Your task to perform on an android device: toggle airplane mode Image 0: 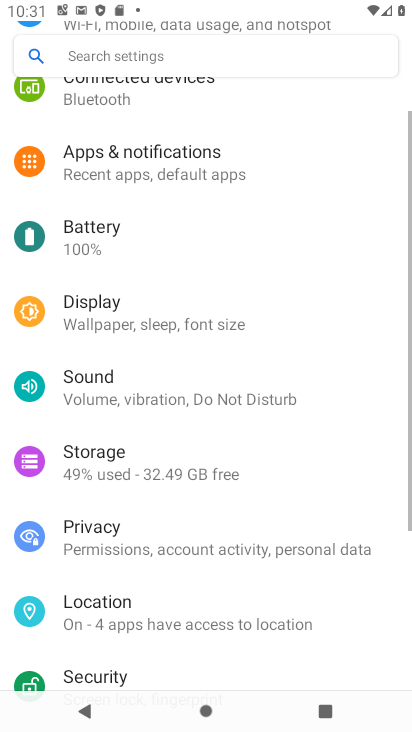
Step 0: press home button
Your task to perform on an android device: toggle airplane mode Image 1: 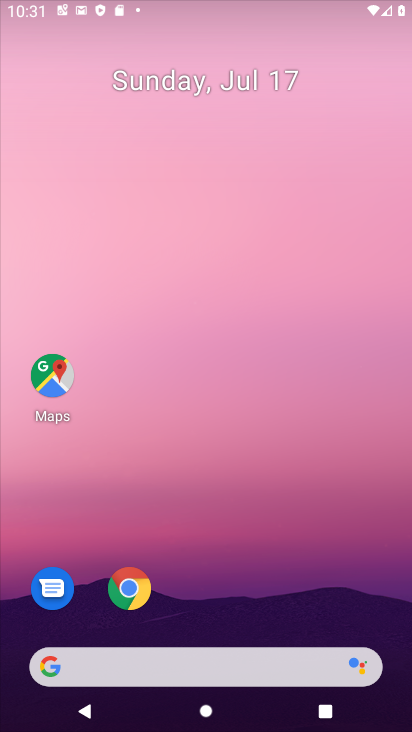
Step 1: drag from (357, 2) to (322, 563)
Your task to perform on an android device: toggle airplane mode Image 2: 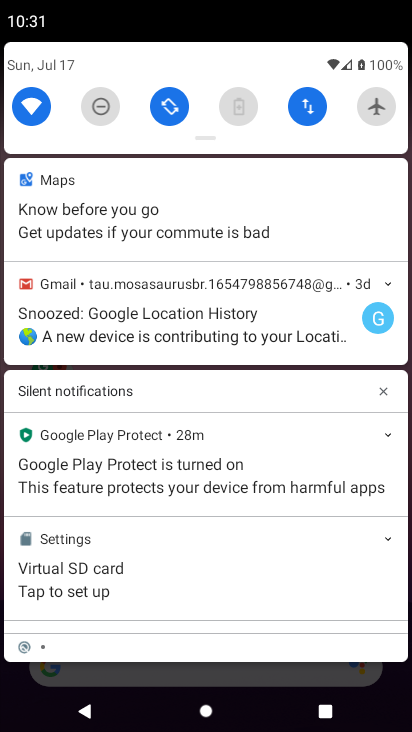
Step 2: click (369, 119)
Your task to perform on an android device: toggle airplane mode Image 3: 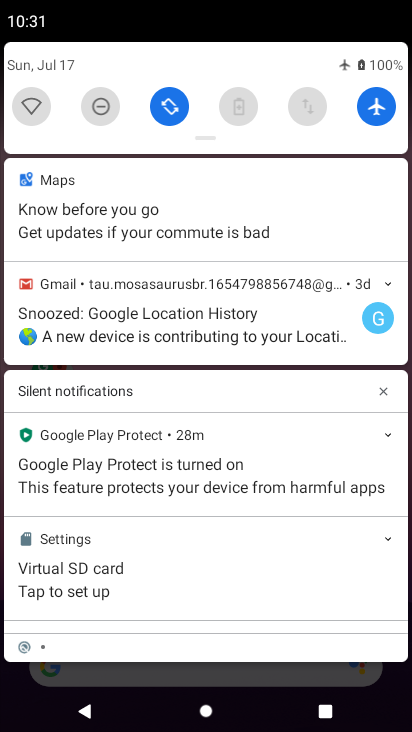
Step 3: task complete